Your task to perform on an android device: Is it going to rain tomorrow? Image 0: 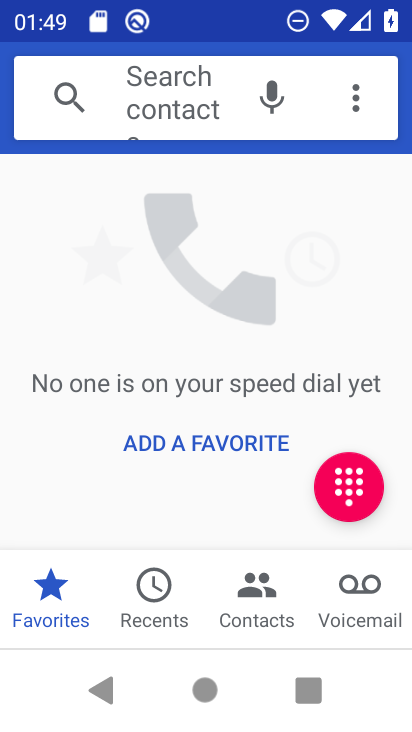
Step 0: press home button
Your task to perform on an android device: Is it going to rain tomorrow? Image 1: 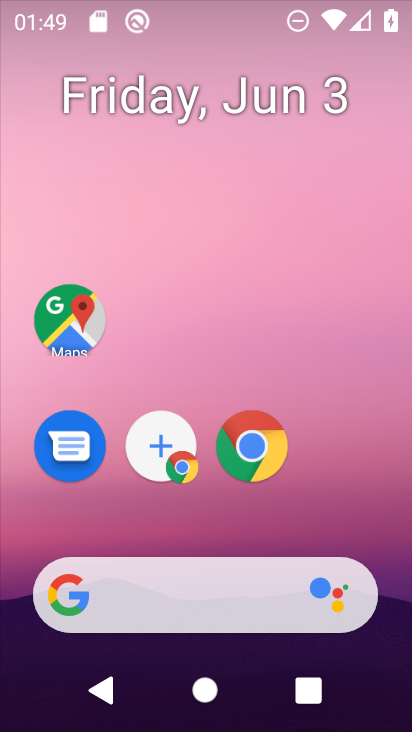
Step 1: click (258, 579)
Your task to perform on an android device: Is it going to rain tomorrow? Image 2: 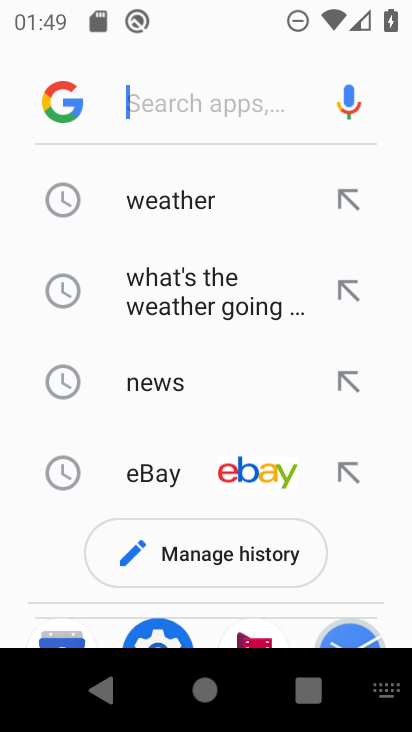
Step 2: type "Is it going to rain tomorrow?"
Your task to perform on an android device: Is it going to rain tomorrow? Image 3: 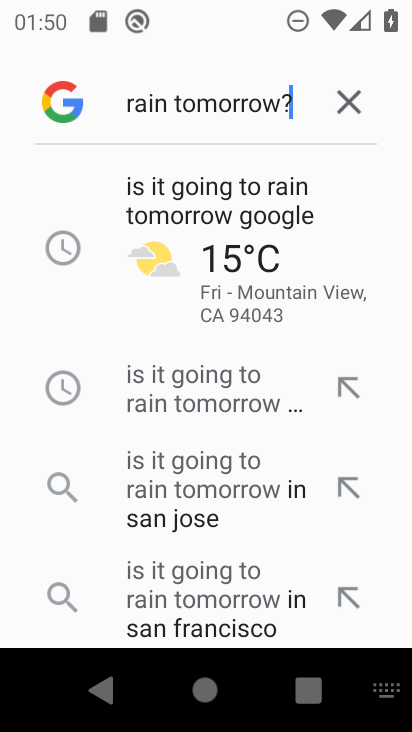
Step 3: click (223, 192)
Your task to perform on an android device: Is it going to rain tomorrow? Image 4: 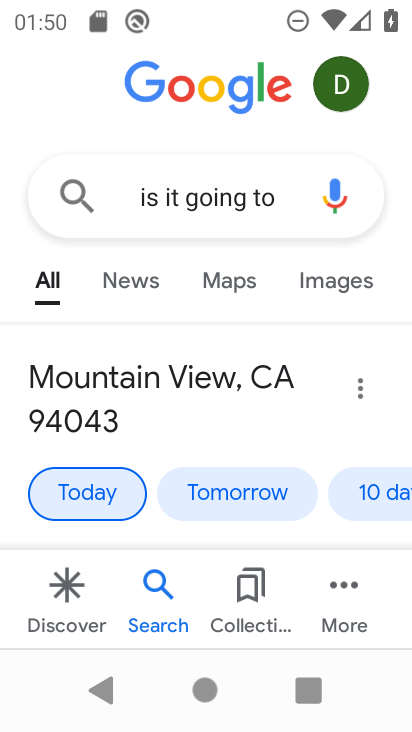
Step 4: task complete